Your task to perform on an android device: See recent photos Image 0: 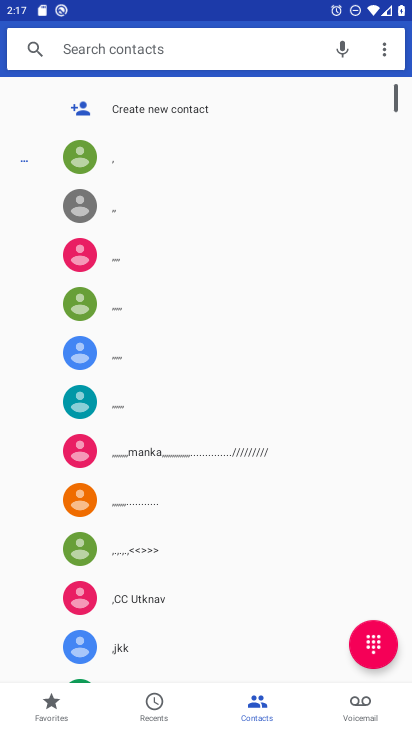
Step 0: press home button
Your task to perform on an android device: See recent photos Image 1: 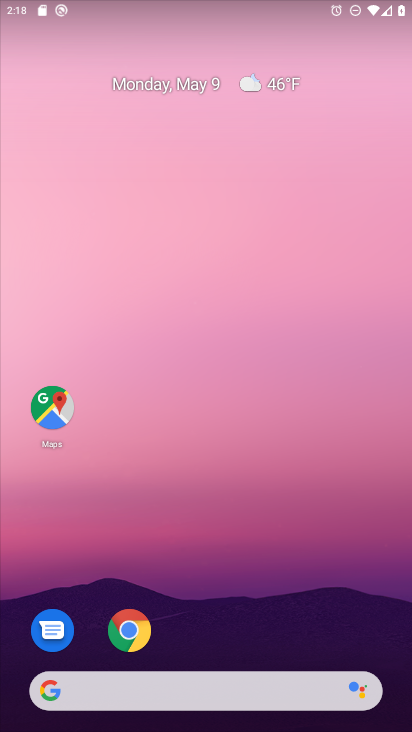
Step 1: drag from (255, 713) to (317, 261)
Your task to perform on an android device: See recent photos Image 2: 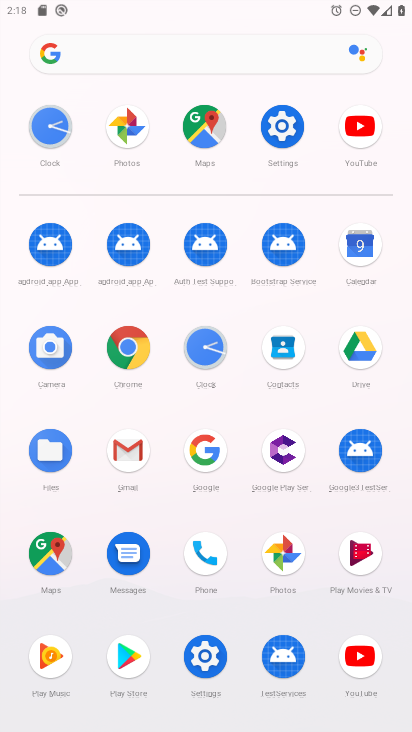
Step 2: click (284, 540)
Your task to perform on an android device: See recent photos Image 3: 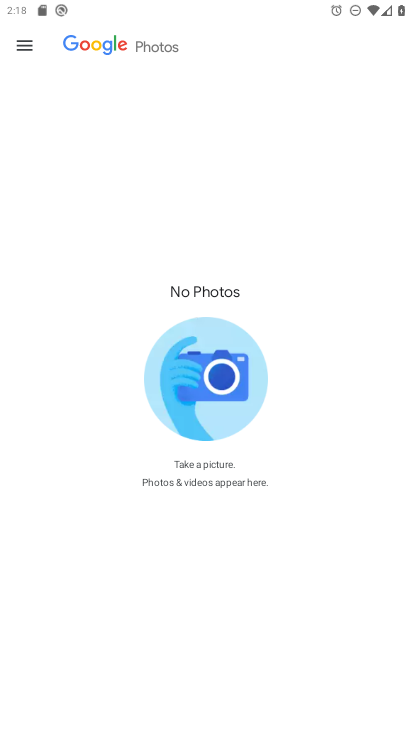
Step 3: task complete